Your task to perform on an android device: Go to privacy settings Image 0: 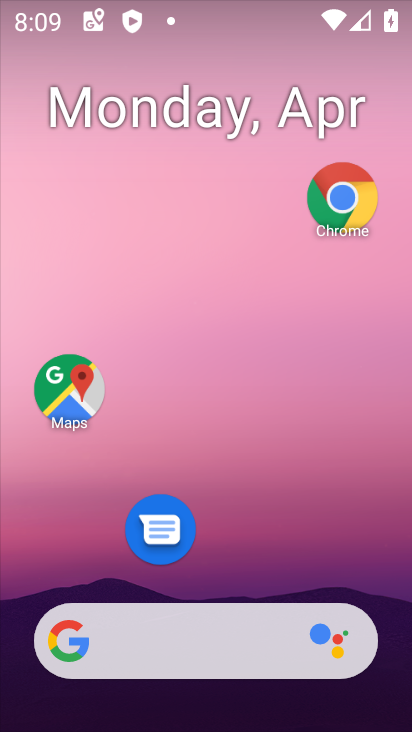
Step 0: drag from (242, 462) to (344, 11)
Your task to perform on an android device: Go to privacy settings Image 1: 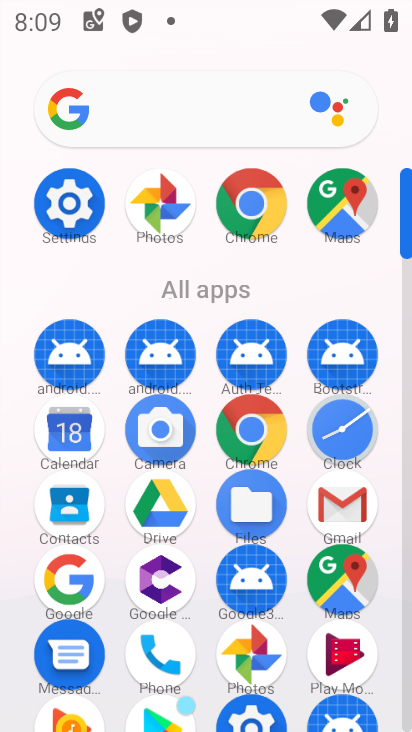
Step 1: click (66, 215)
Your task to perform on an android device: Go to privacy settings Image 2: 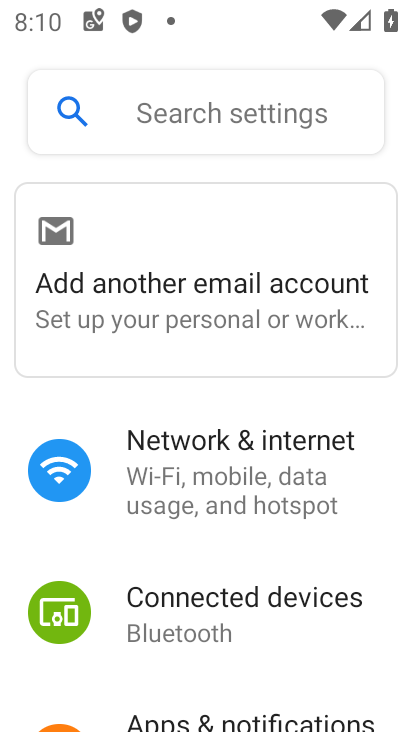
Step 2: drag from (238, 586) to (261, 211)
Your task to perform on an android device: Go to privacy settings Image 3: 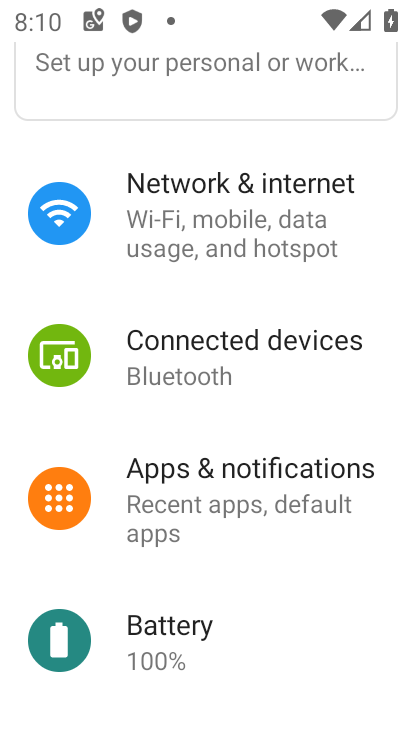
Step 3: drag from (245, 657) to (313, 156)
Your task to perform on an android device: Go to privacy settings Image 4: 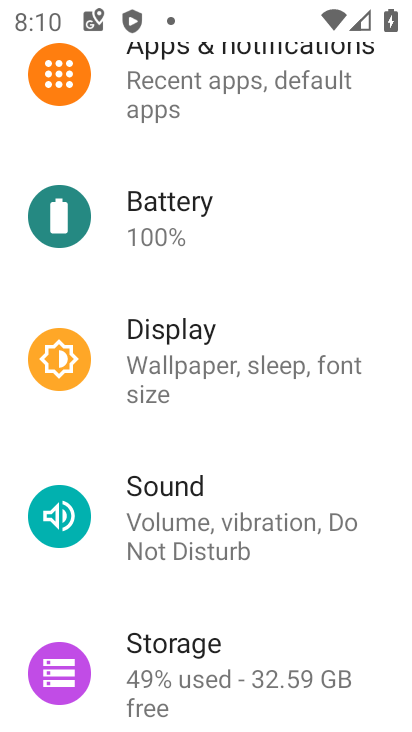
Step 4: drag from (236, 642) to (261, 115)
Your task to perform on an android device: Go to privacy settings Image 5: 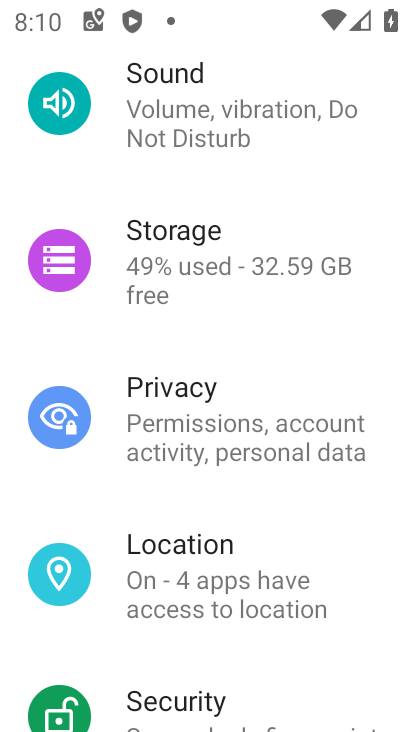
Step 5: click (212, 421)
Your task to perform on an android device: Go to privacy settings Image 6: 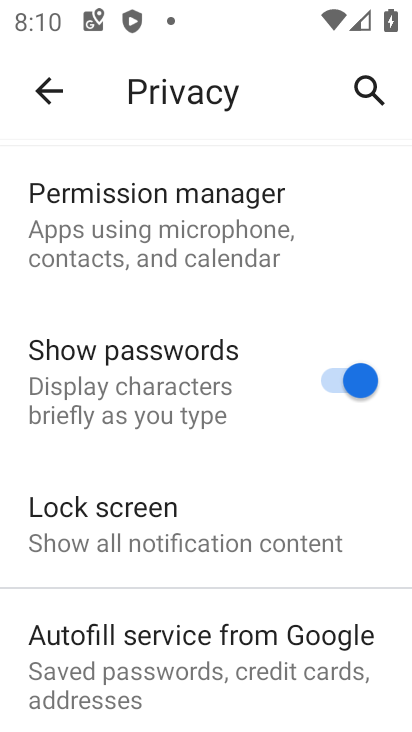
Step 6: task complete